Your task to perform on an android device: open app "Move to iOS" Image 0: 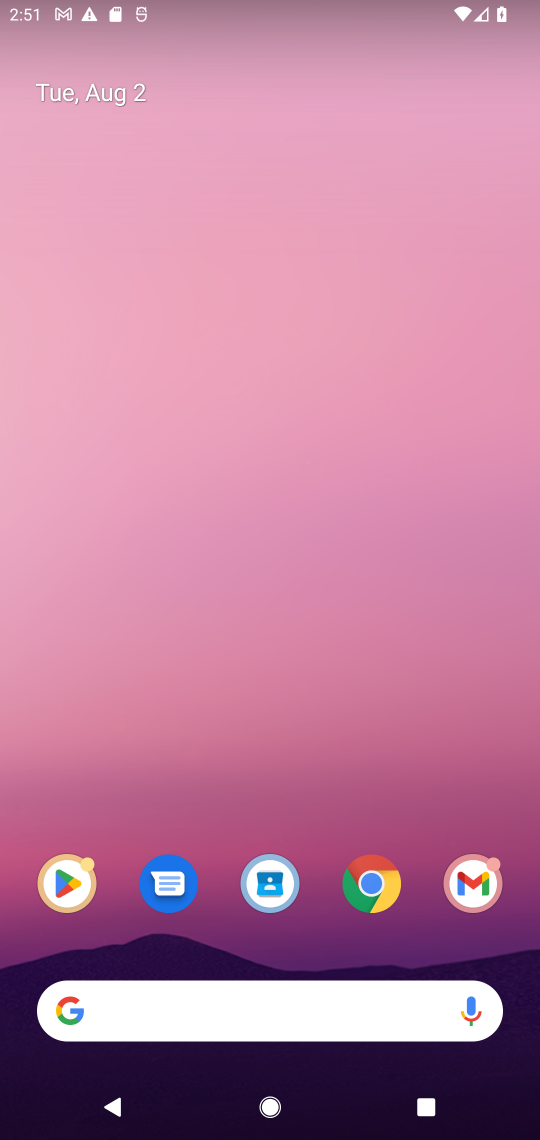
Step 0: press home button
Your task to perform on an android device: open app "Move to iOS" Image 1: 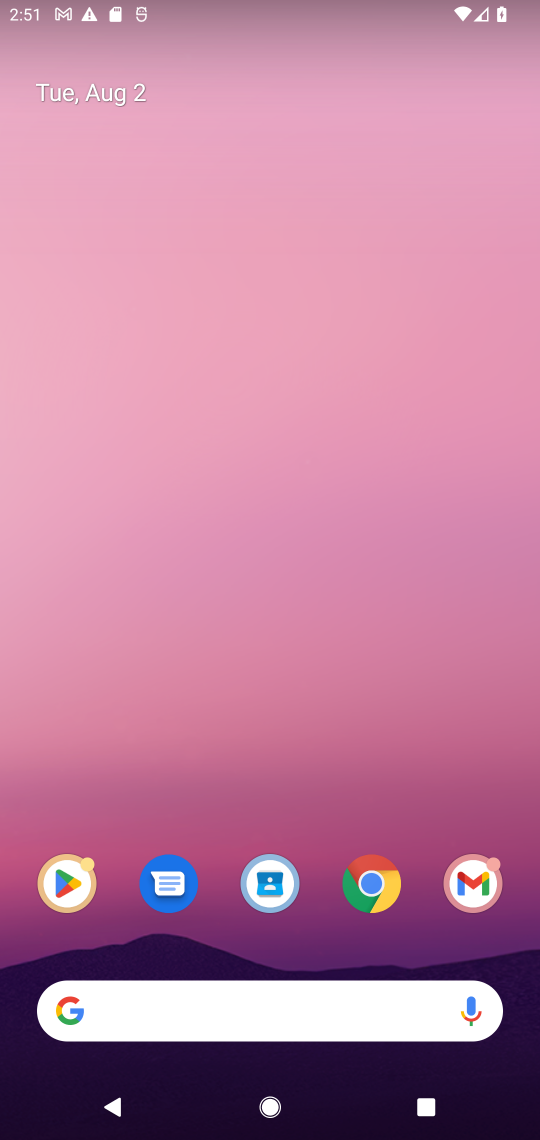
Step 1: click (53, 907)
Your task to perform on an android device: open app "Move to iOS" Image 2: 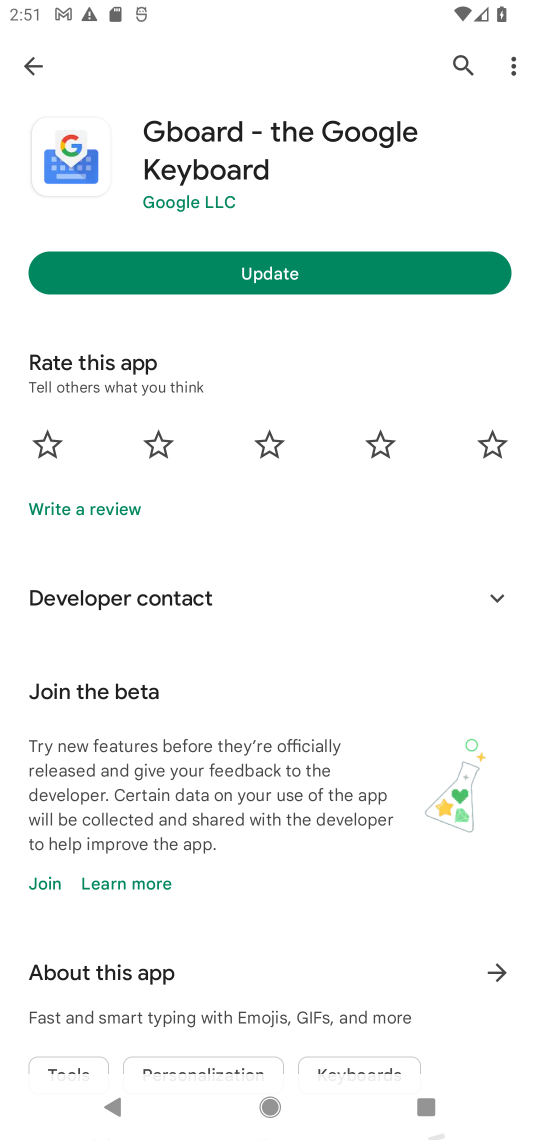
Step 2: click (450, 67)
Your task to perform on an android device: open app "Move to iOS" Image 3: 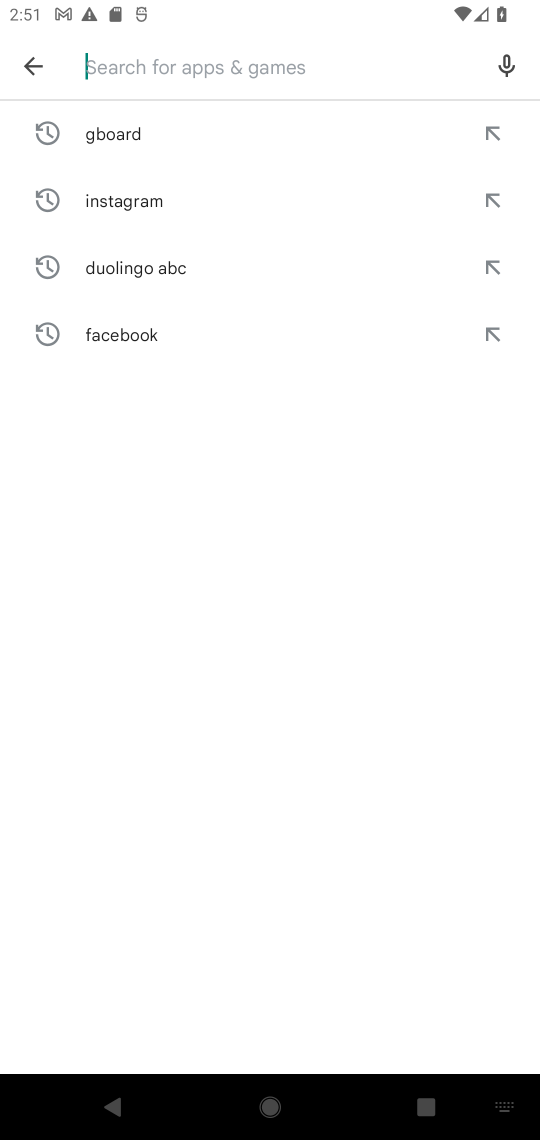
Step 3: click (450, 67)
Your task to perform on an android device: open app "Move to iOS" Image 4: 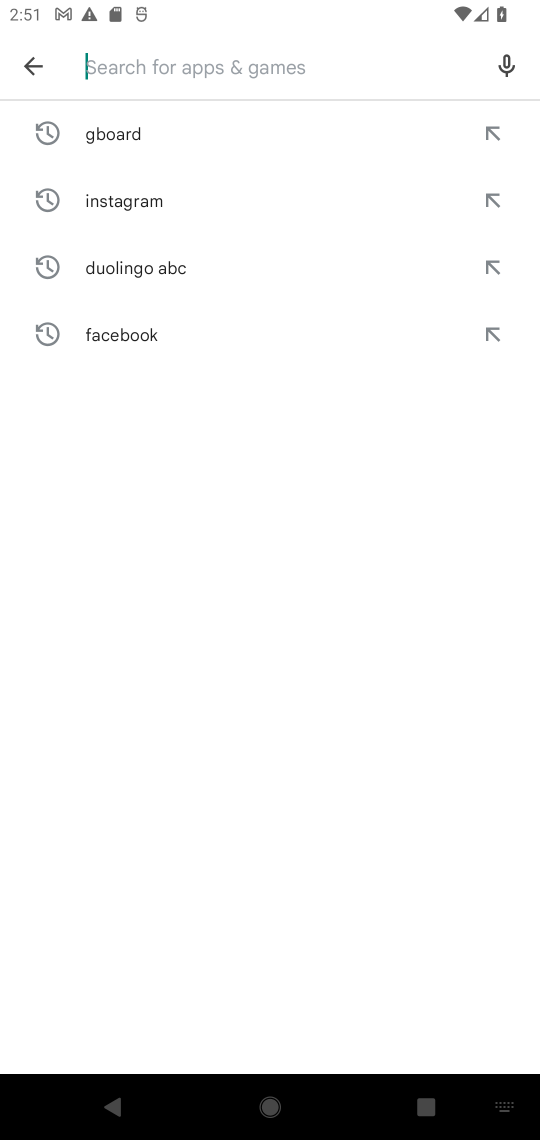
Step 4: type "Move to iOS""
Your task to perform on an android device: open app "Move to iOS" Image 5: 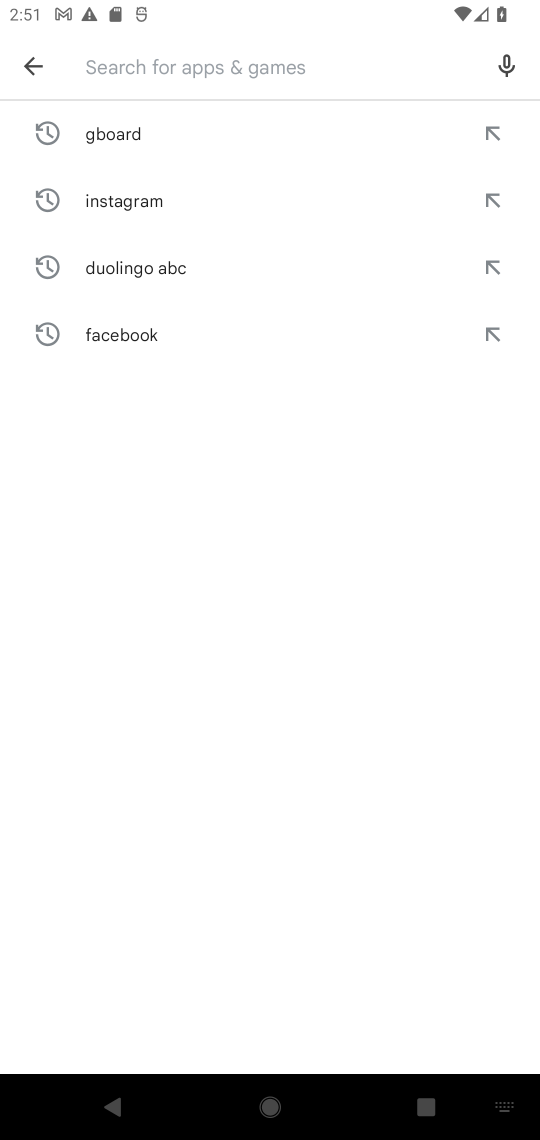
Step 5: type ""
Your task to perform on an android device: open app "Move to iOS" Image 6: 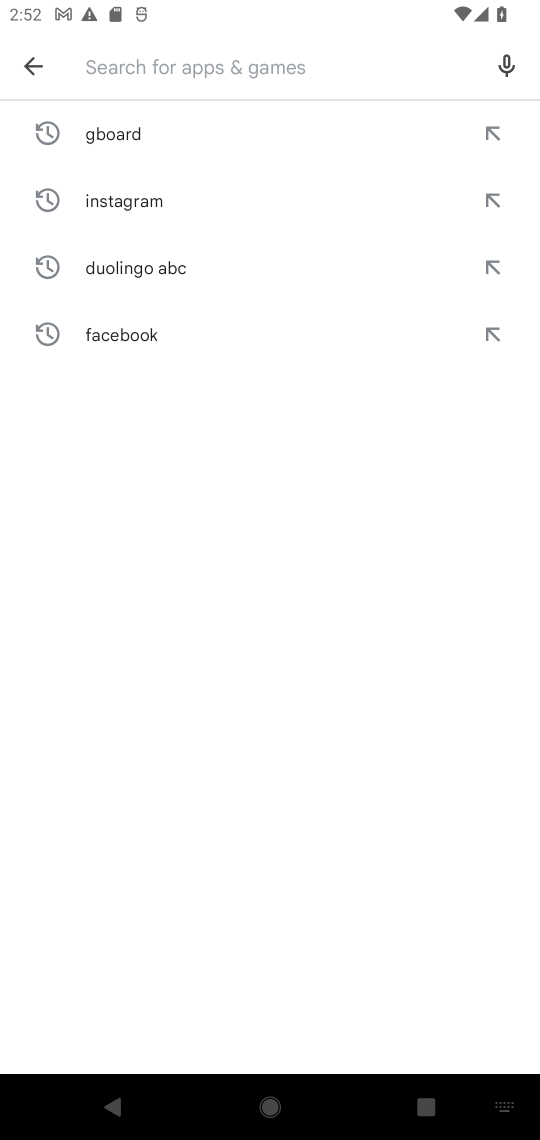
Step 6: type "Move to iOS"
Your task to perform on an android device: open app "Move to iOS" Image 7: 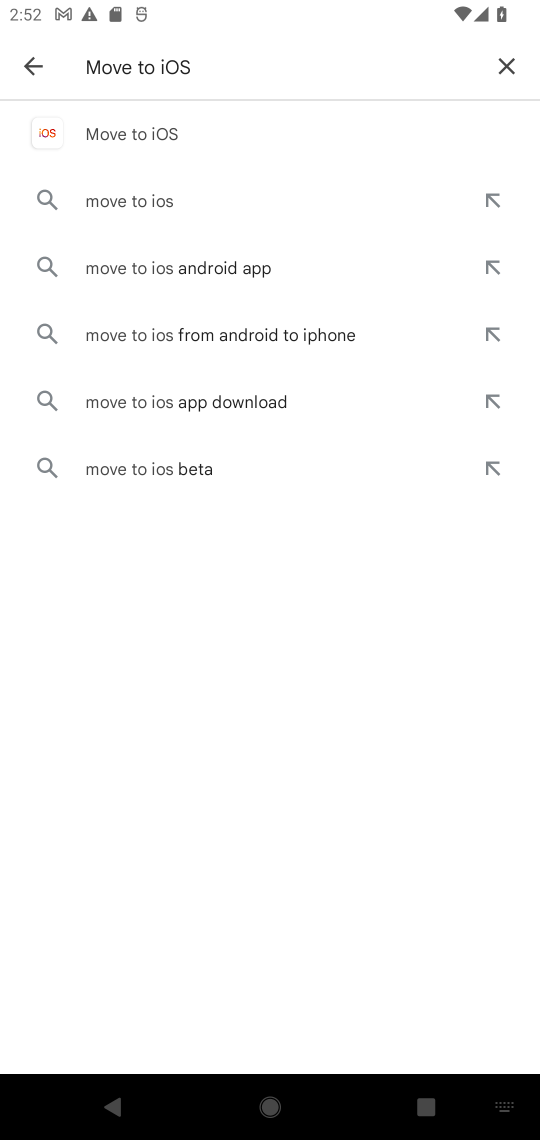
Step 7: click (95, 139)
Your task to perform on an android device: open app "Move to iOS" Image 8: 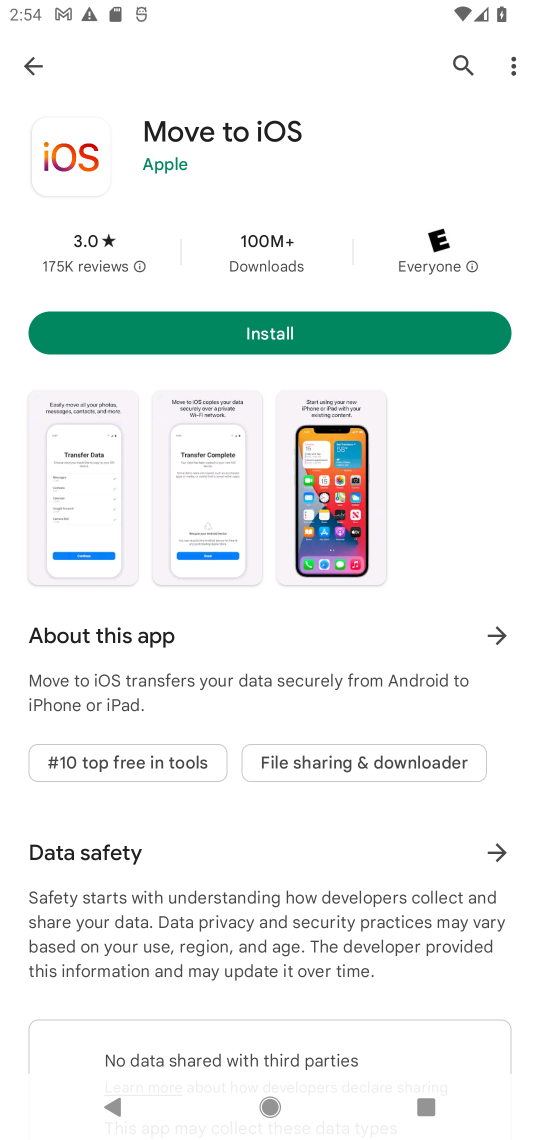
Step 8: task complete